Your task to perform on an android device: check out phone information Image 0: 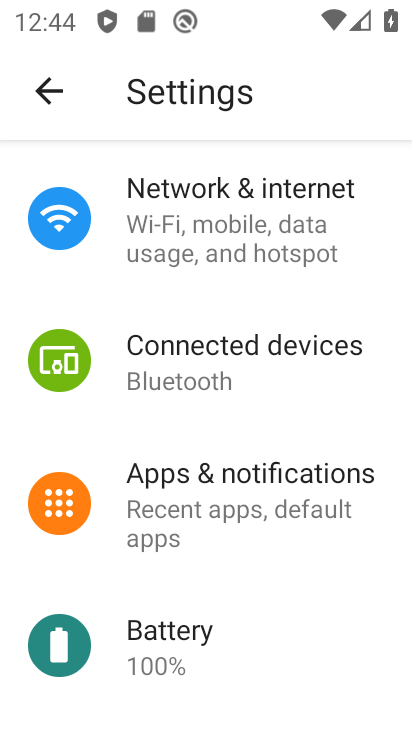
Step 0: drag from (187, 394) to (196, 96)
Your task to perform on an android device: check out phone information Image 1: 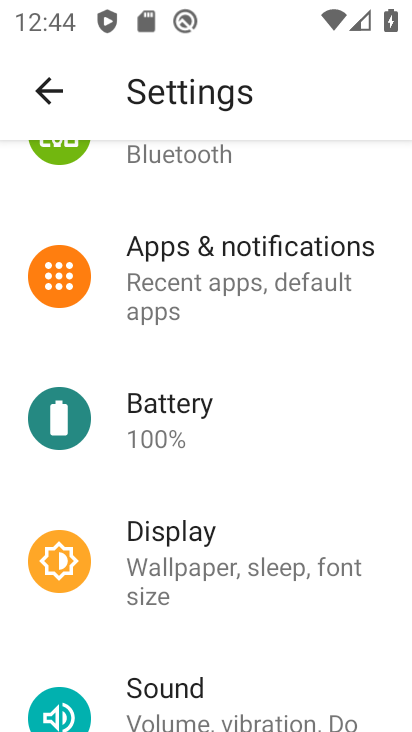
Step 1: drag from (187, 454) to (163, 164)
Your task to perform on an android device: check out phone information Image 2: 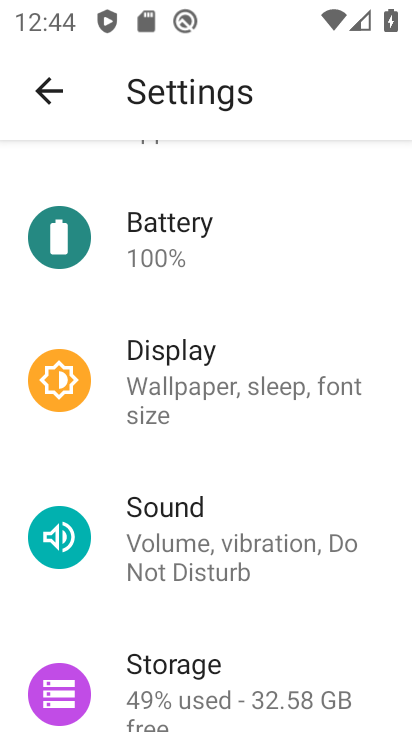
Step 2: drag from (199, 459) to (243, 94)
Your task to perform on an android device: check out phone information Image 3: 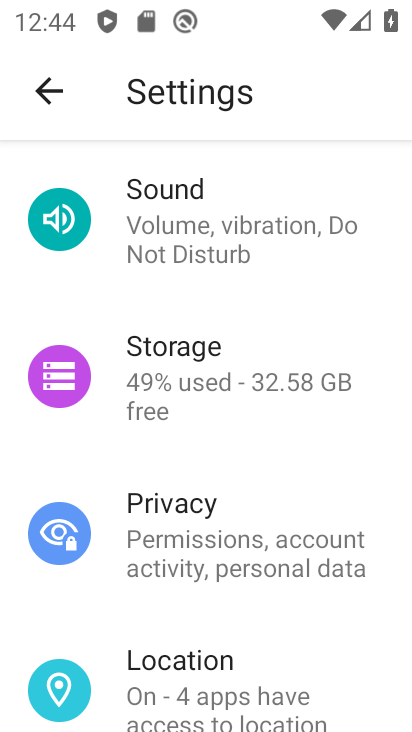
Step 3: drag from (185, 468) to (204, 37)
Your task to perform on an android device: check out phone information Image 4: 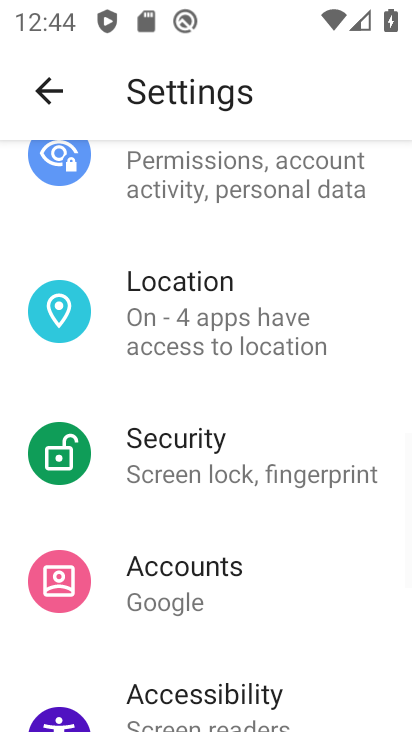
Step 4: drag from (207, 401) to (230, 10)
Your task to perform on an android device: check out phone information Image 5: 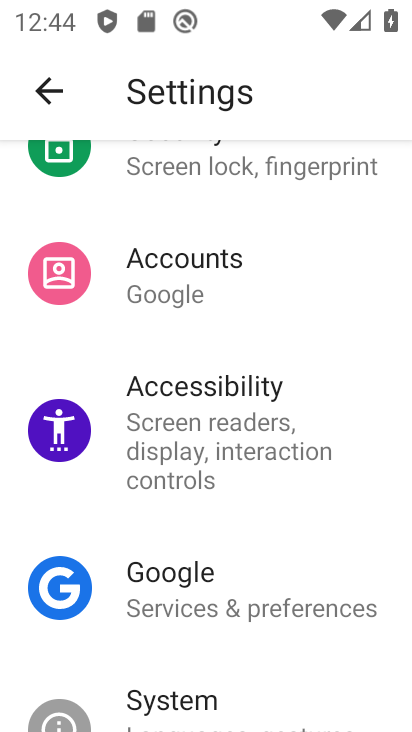
Step 5: drag from (206, 468) to (229, 62)
Your task to perform on an android device: check out phone information Image 6: 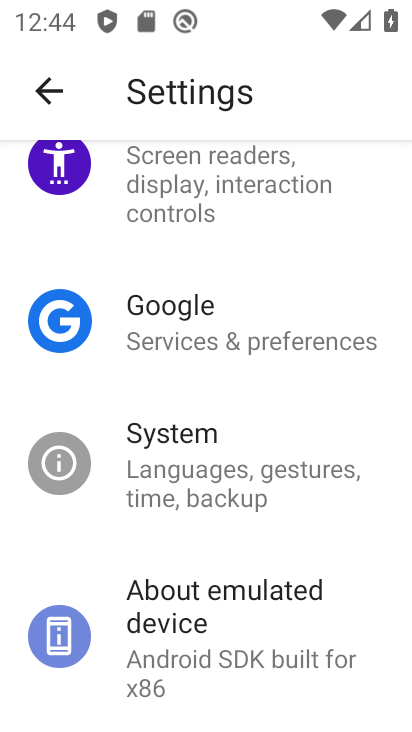
Step 6: drag from (142, 519) to (184, 118)
Your task to perform on an android device: check out phone information Image 7: 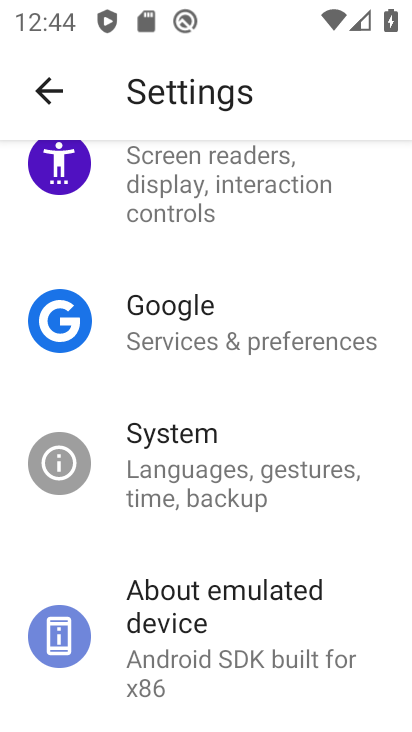
Step 7: click (184, 605)
Your task to perform on an android device: check out phone information Image 8: 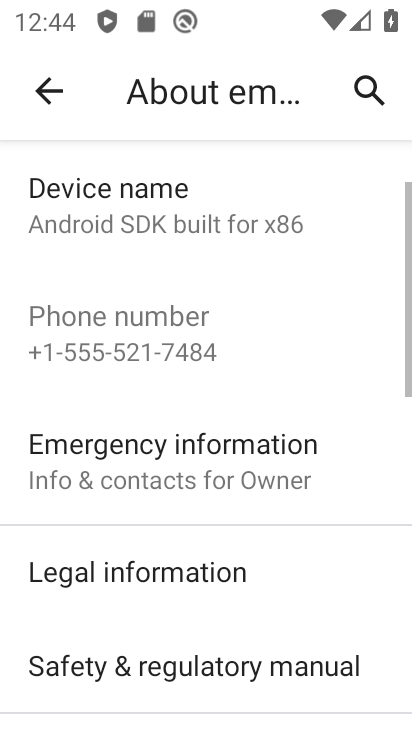
Step 8: task complete